Your task to perform on an android device: Open the music app Image 0: 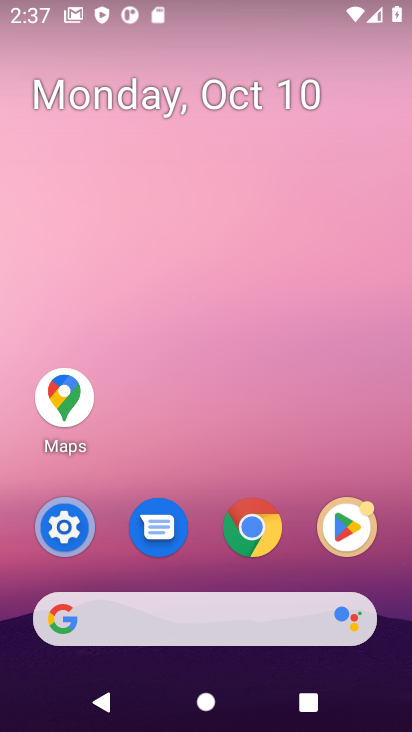
Step 0: press home button
Your task to perform on an android device: Open the music app Image 1: 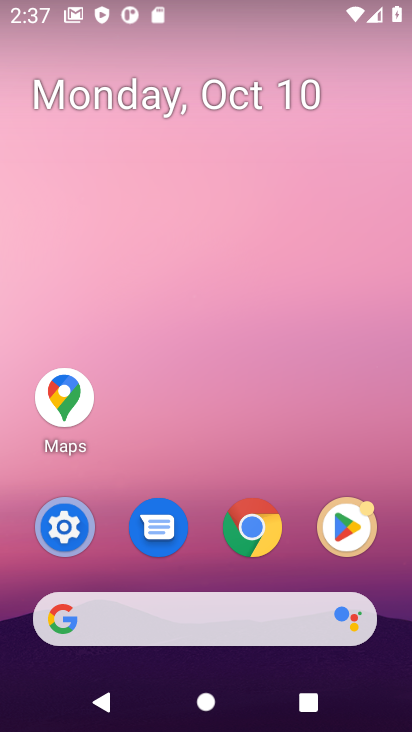
Step 1: drag from (388, 594) to (366, 56)
Your task to perform on an android device: Open the music app Image 2: 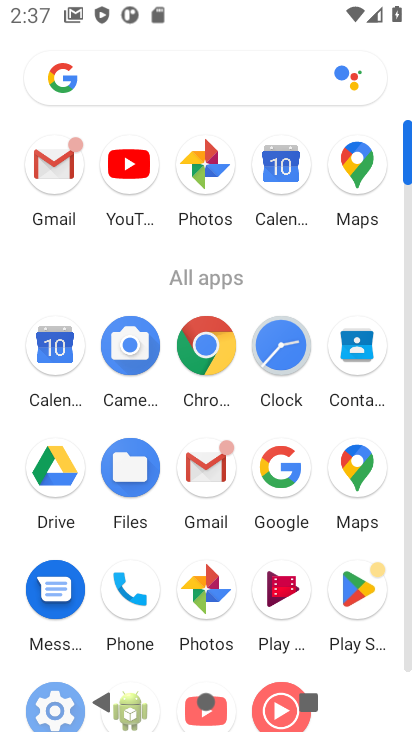
Step 2: drag from (371, 672) to (396, 388)
Your task to perform on an android device: Open the music app Image 3: 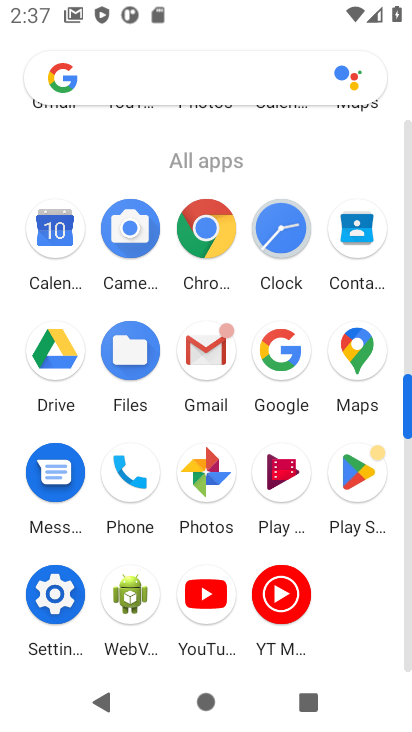
Step 3: click (361, 482)
Your task to perform on an android device: Open the music app Image 4: 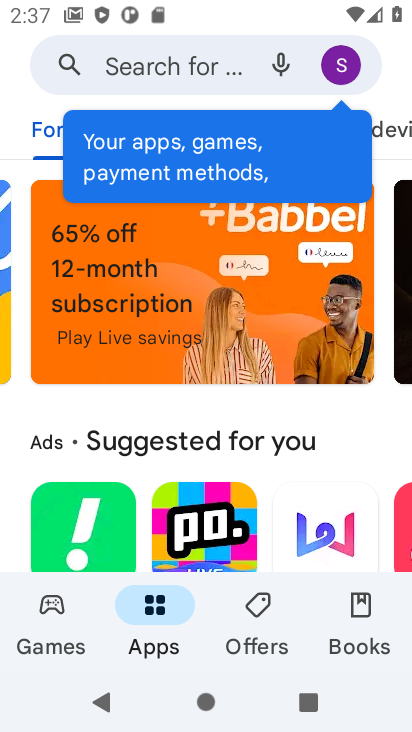
Step 4: click (168, 63)
Your task to perform on an android device: Open the music app Image 5: 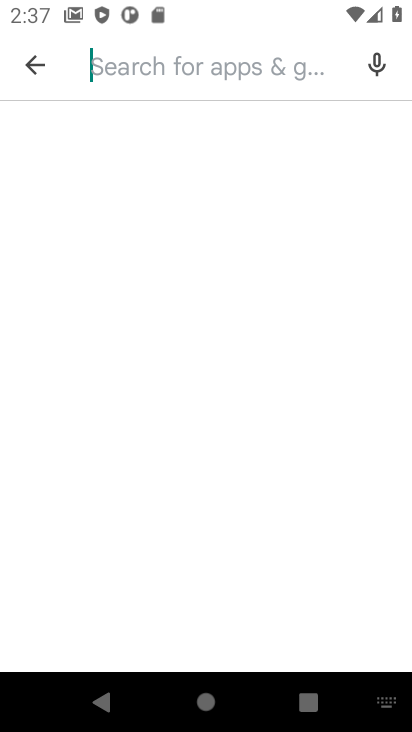
Step 5: type "music app"
Your task to perform on an android device: Open the music app Image 6: 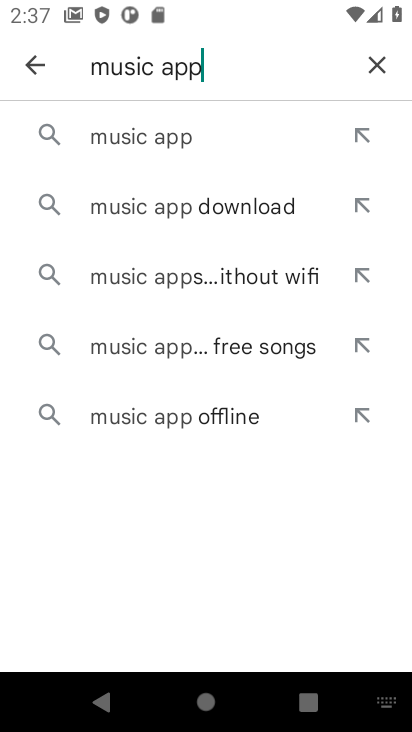
Step 6: click (174, 148)
Your task to perform on an android device: Open the music app Image 7: 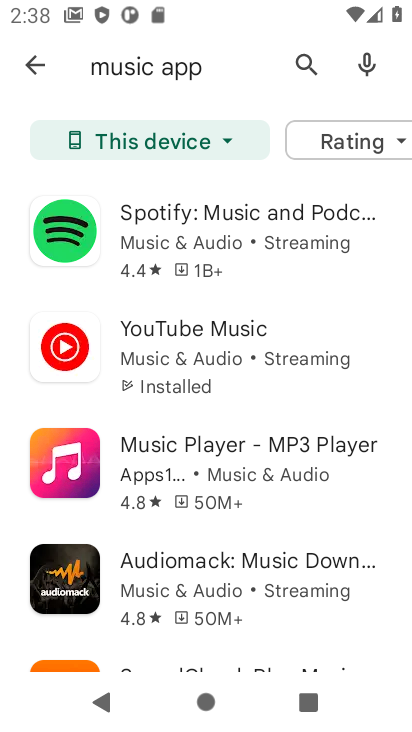
Step 7: click (231, 246)
Your task to perform on an android device: Open the music app Image 8: 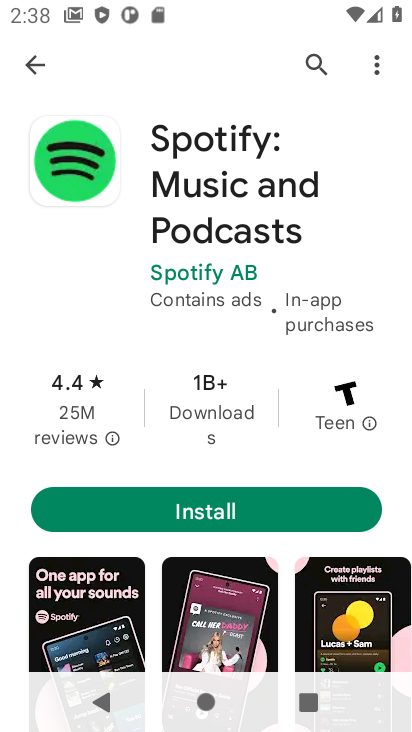
Step 8: task complete